Your task to perform on an android device: set an alarm Image 0: 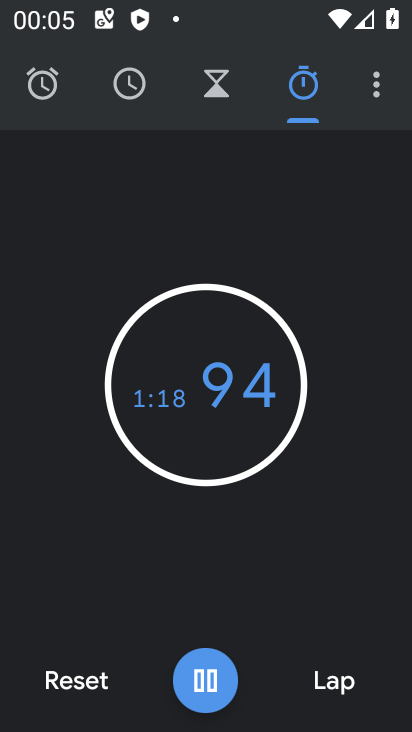
Step 0: click (84, 679)
Your task to perform on an android device: set an alarm Image 1: 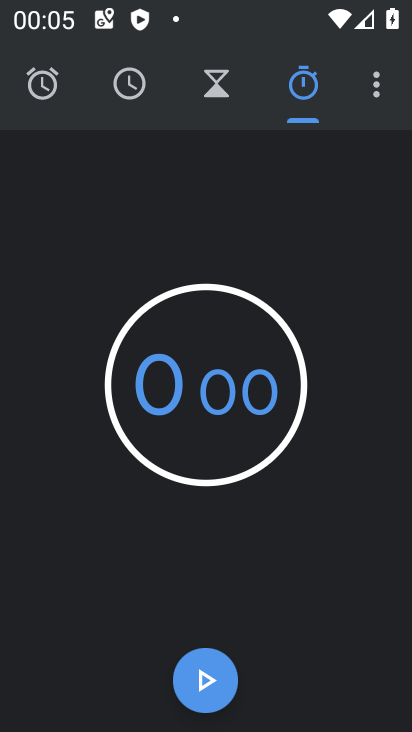
Step 1: click (40, 80)
Your task to perform on an android device: set an alarm Image 2: 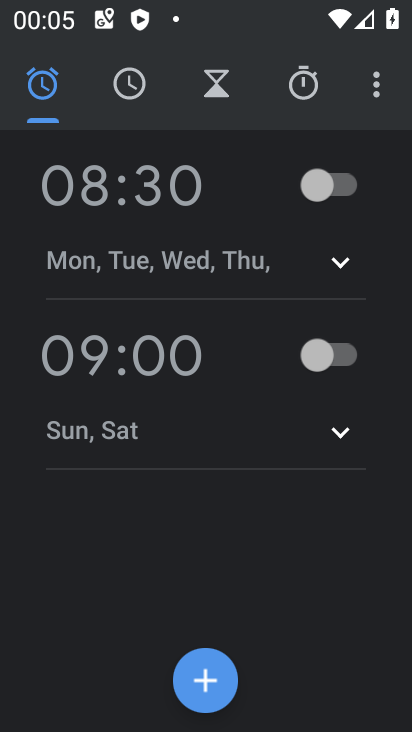
Step 2: click (171, 182)
Your task to perform on an android device: set an alarm Image 3: 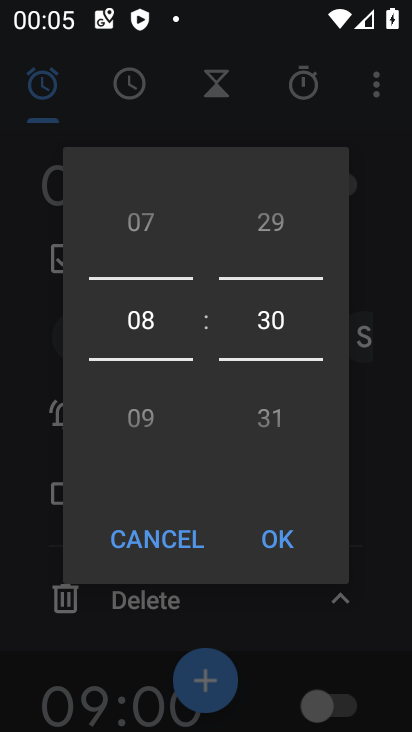
Step 3: drag from (137, 420) to (161, 233)
Your task to perform on an android device: set an alarm Image 4: 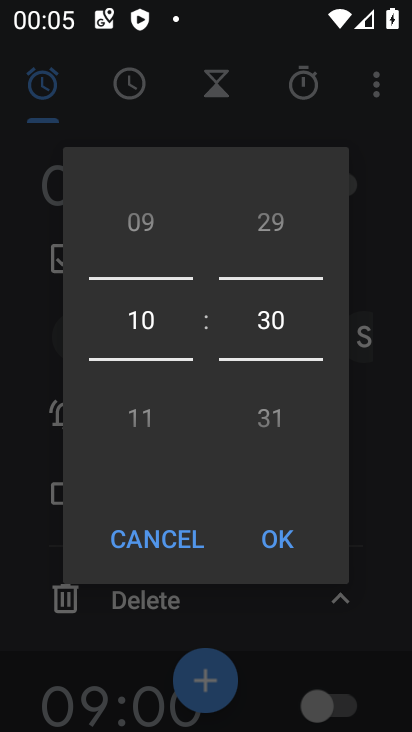
Step 4: click (276, 545)
Your task to perform on an android device: set an alarm Image 5: 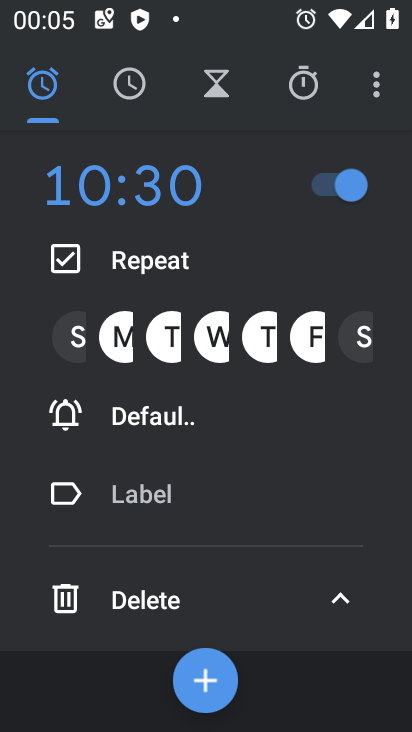
Step 5: task complete